Your task to perform on an android device: turn on improve location accuracy Image 0: 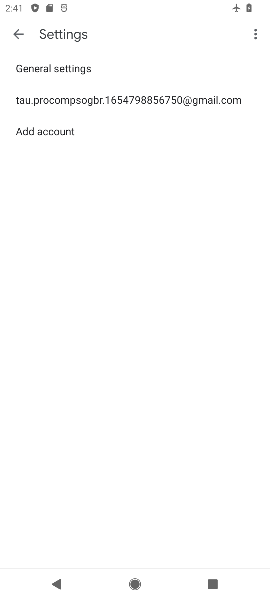
Step 0: press home button
Your task to perform on an android device: turn on improve location accuracy Image 1: 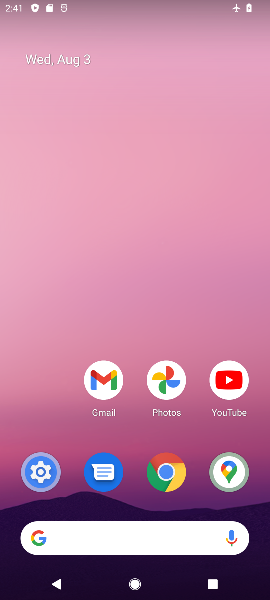
Step 1: drag from (230, 482) to (170, 60)
Your task to perform on an android device: turn on improve location accuracy Image 2: 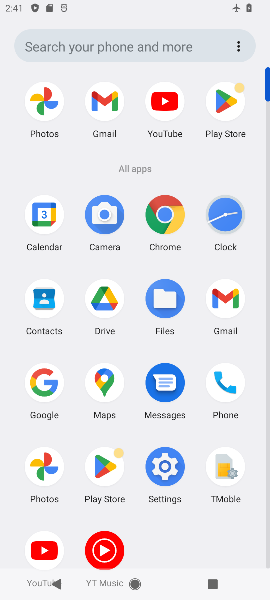
Step 2: click (167, 491)
Your task to perform on an android device: turn on improve location accuracy Image 3: 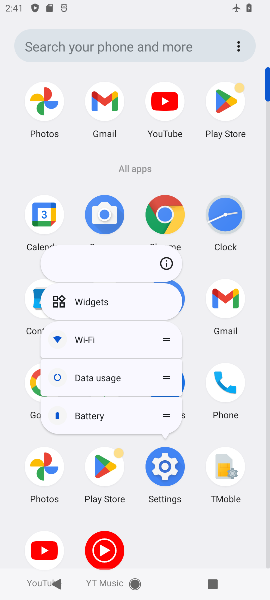
Step 3: click (167, 491)
Your task to perform on an android device: turn on improve location accuracy Image 4: 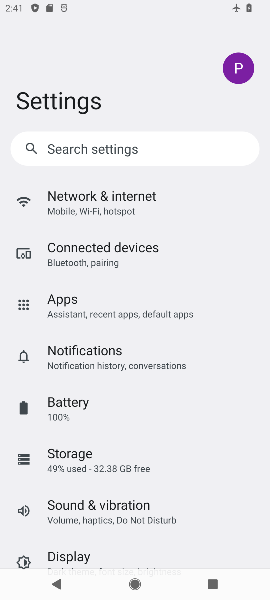
Step 4: drag from (167, 491) to (175, 181)
Your task to perform on an android device: turn on improve location accuracy Image 5: 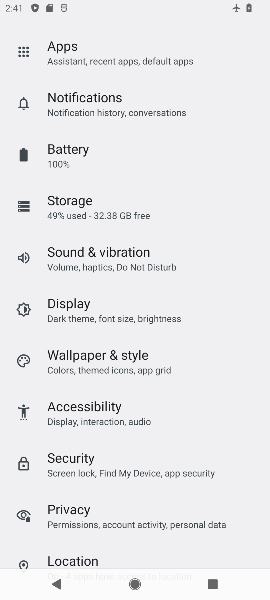
Step 5: click (69, 563)
Your task to perform on an android device: turn on improve location accuracy Image 6: 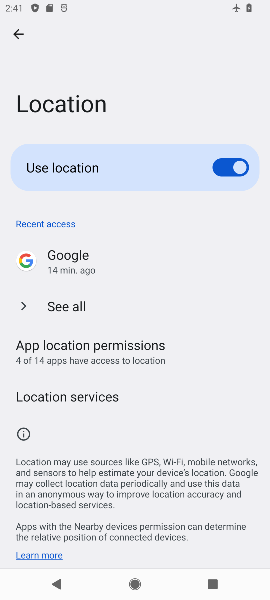
Step 6: click (65, 405)
Your task to perform on an android device: turn on improve location accuracy Image 7: 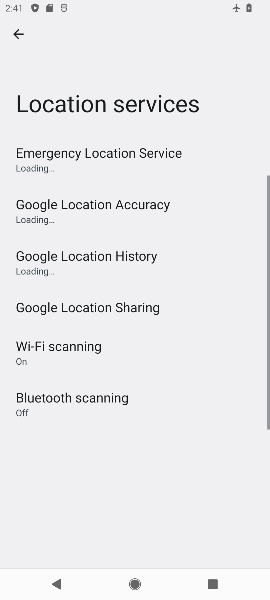
Step 7: click (125, 214)
Your task to perform on an android device: turn on improve location accuracy Image 8: 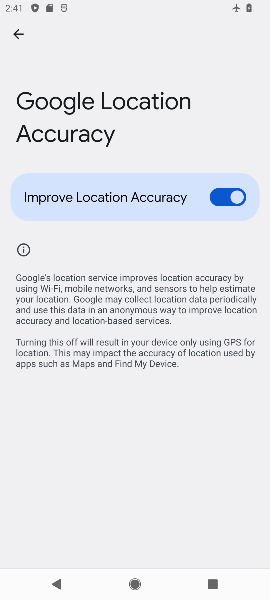
Step 8: task complete